Your task to perform on an android device: delete the emails in spam in the gmail app Image 0: 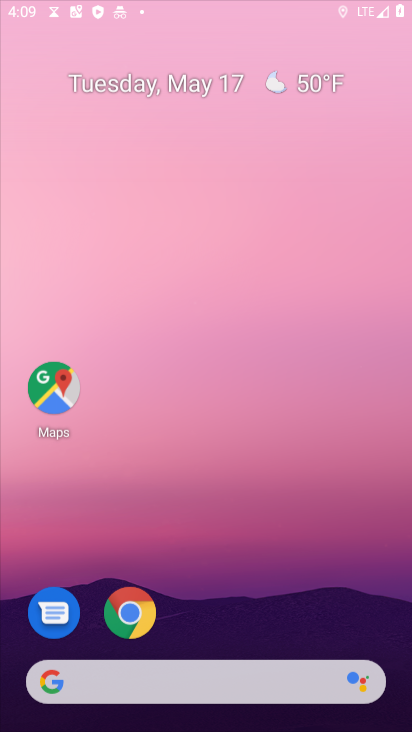
Step 0: click (222, 365)
Your task to perform on an android device: delete the emails in spam in the gmail app Image 1: 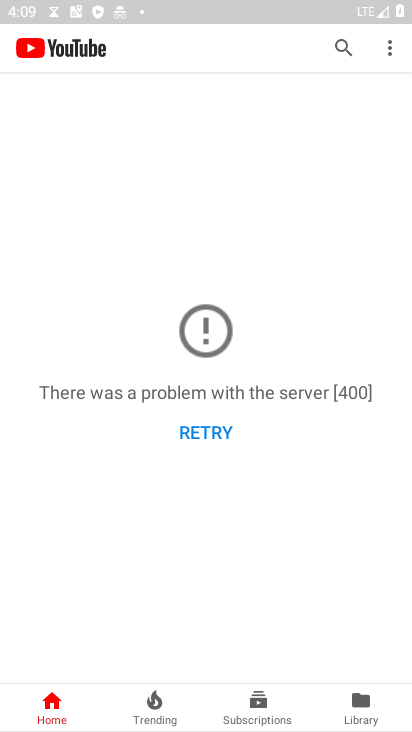
Step 1: press back button
Your task to perform on an android device: delete the emails in spam in the gmail app Image 2: 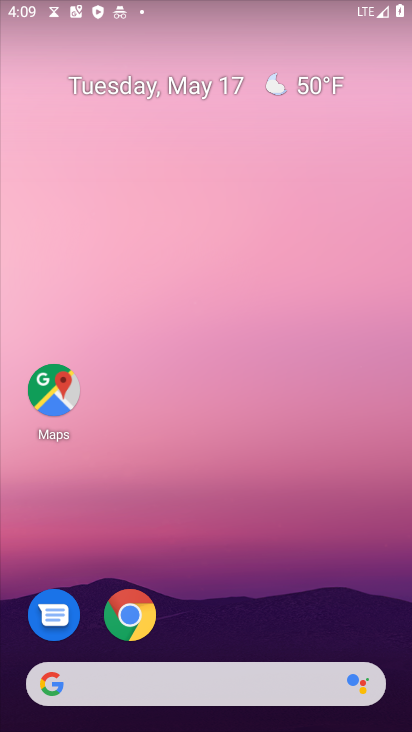
Step 2: drag from (289, 664) to (221, 127)
Your task to perform on an android device: delete the emails in spam in the gmail app Image 3: 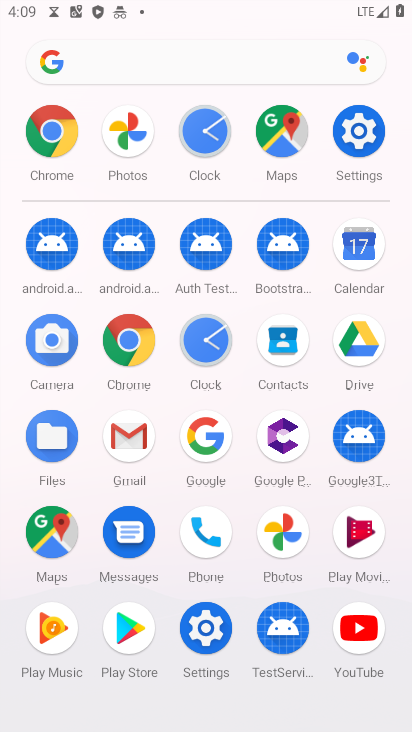
Step 3: click (131, 450)
Your task to perform on an android device: delete the emails in spam in the gmail app Image 4: 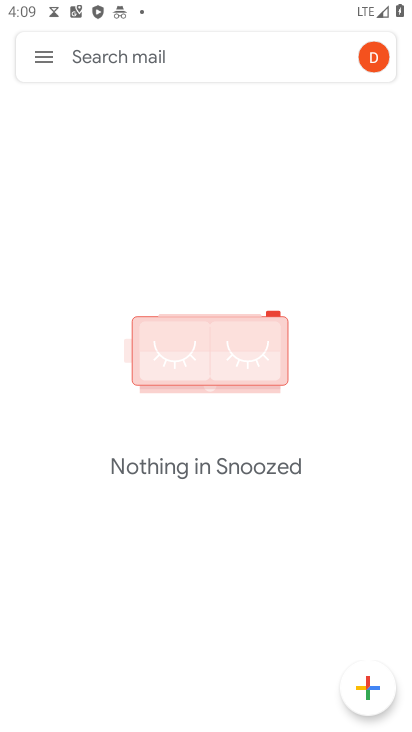
Step 4: click (33, 57)
Your task to perform on an android device: delete the emails in spam in the gmail app Image 5: 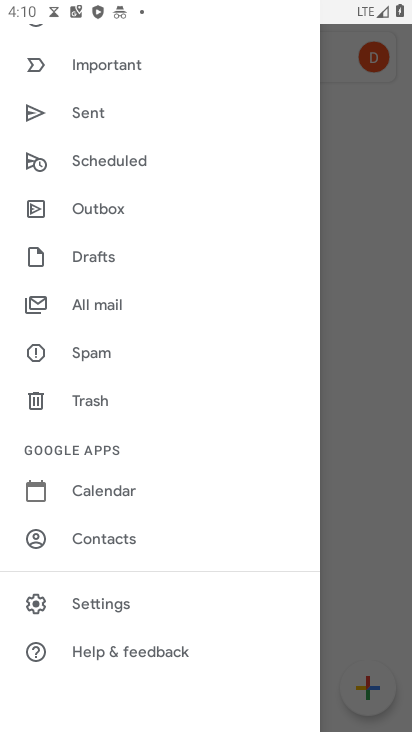
Step 5: click (75, 357)
Your task to perform on an android device: delete the emails in spam in the gmail app Image 6: 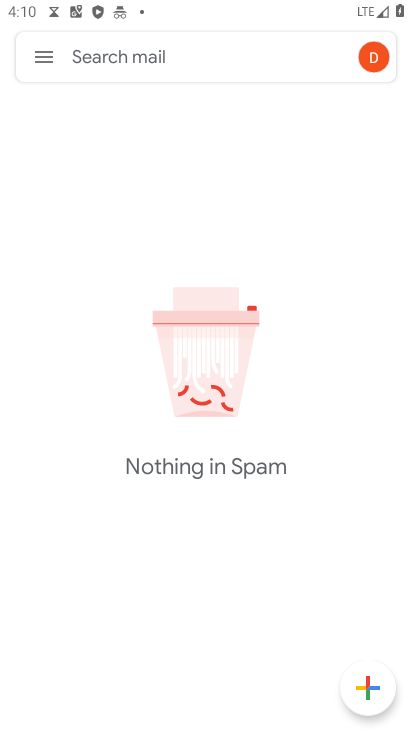
Step 6: press back button
Your task to perform on an android device: delete the emails in spam in the gmail app Image 7: 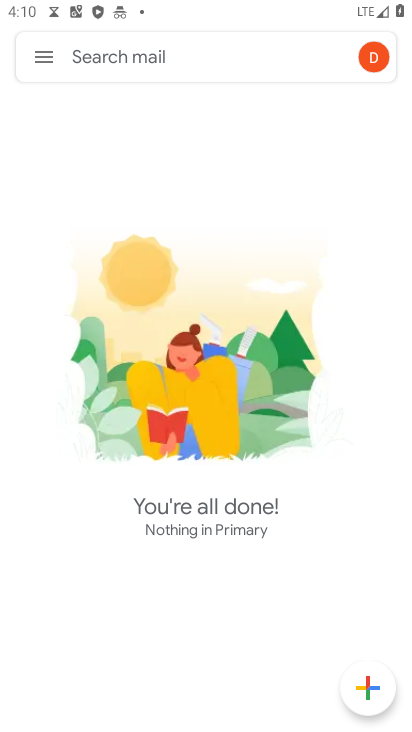
Step 7: click (45, 59)
Your task to perform on an android device: delete the emails in spam in the gmail app Image 8: 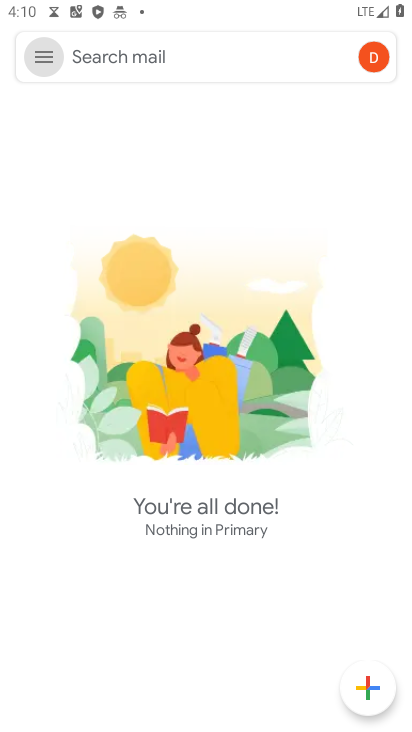
Step 8: click (45, 59)
Your task to perform on an android device: delete the emails in spam in the gmail app Image 9: 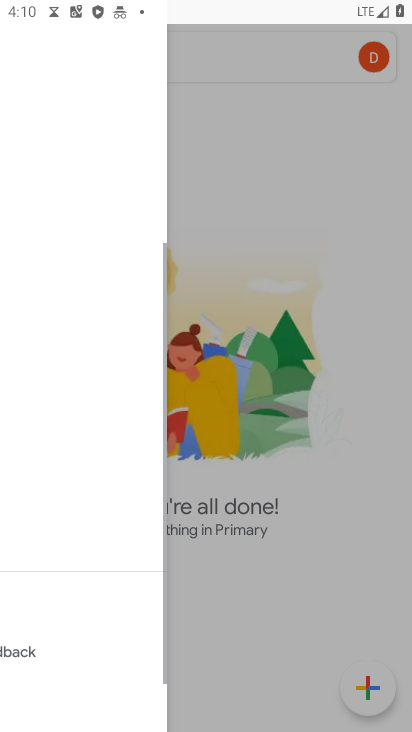
Step 9: click (46, 58)
Your task to perform on an android device: delete the emails in spam in the gmail app Image 10: 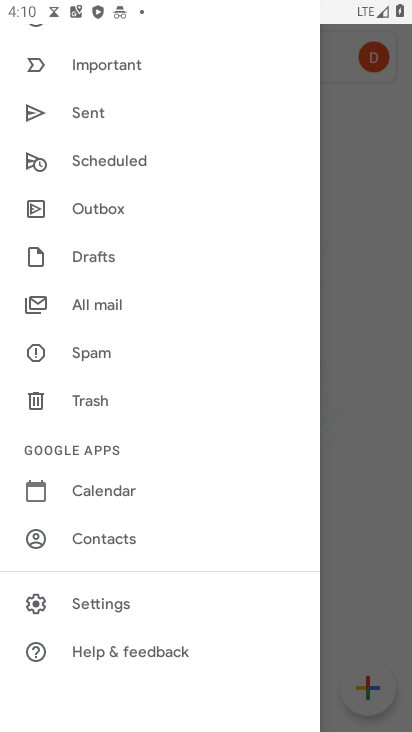
Step 10: click (98, 354)
Your task to perform on an android device: delete the emails in spam in the gmail app Image 11: 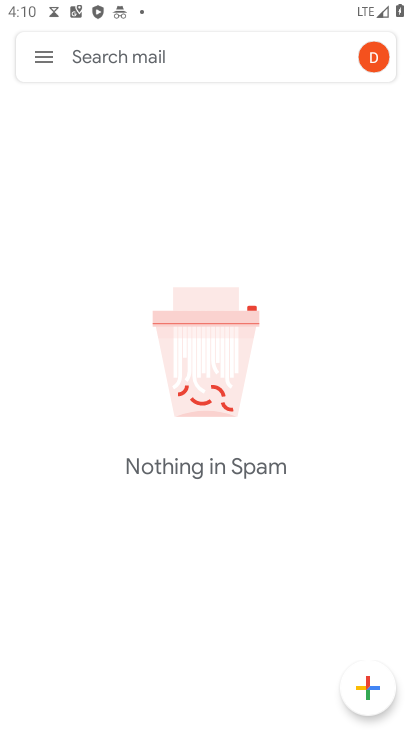
Step 11: task complete